Your task to perform on an android device: Is it going to rain this weekend? Image 0: 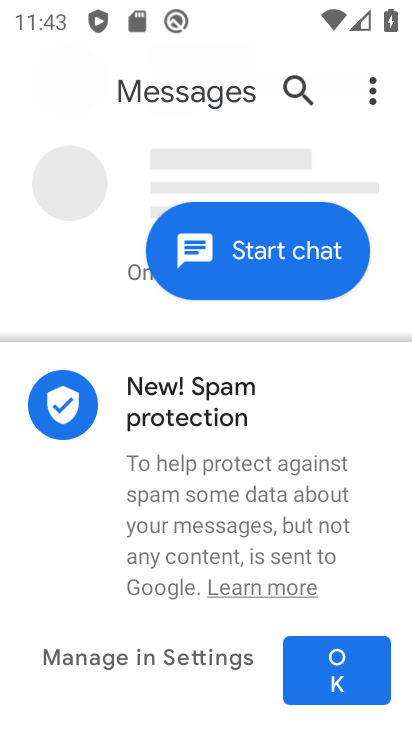
Step 0: click (299, 725)
Your task to perform on an android device: Is it going to rain this weekend? Image 1: 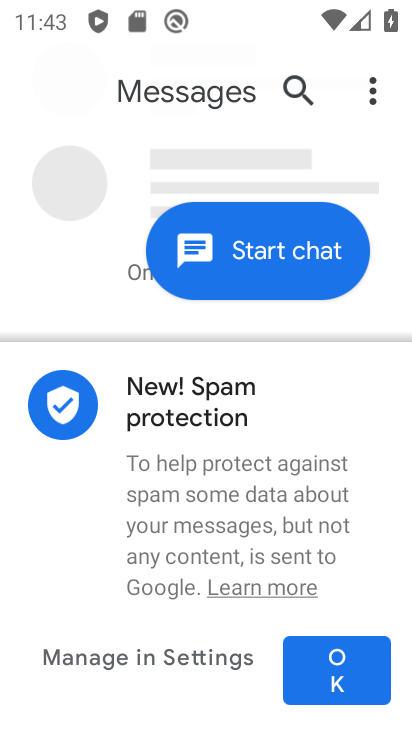
Step 1: press home button
Your task to perform on an android device: Is it going to rain this weekend? Image 2: 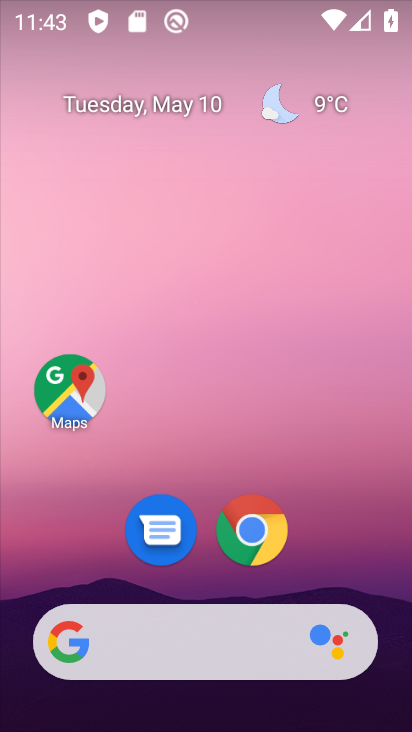
Step 2: click (253, 545)
Your task to perform on an android device: Is it going to rain this weekend? Image 3: 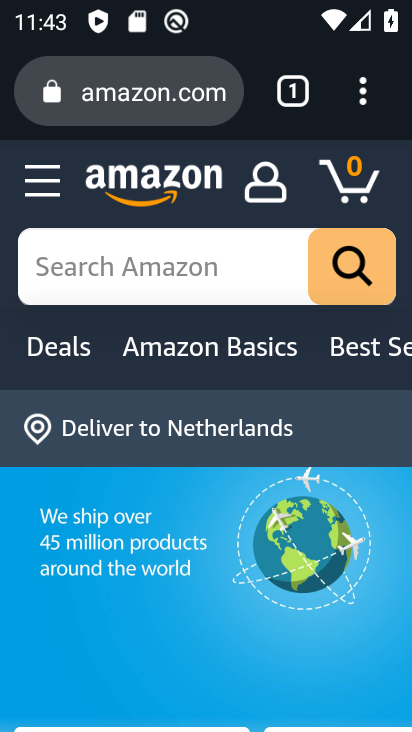
Step 3: click (163, 100)
Your task to perform on an android device: Is it going to rain this weekend? Image 4: 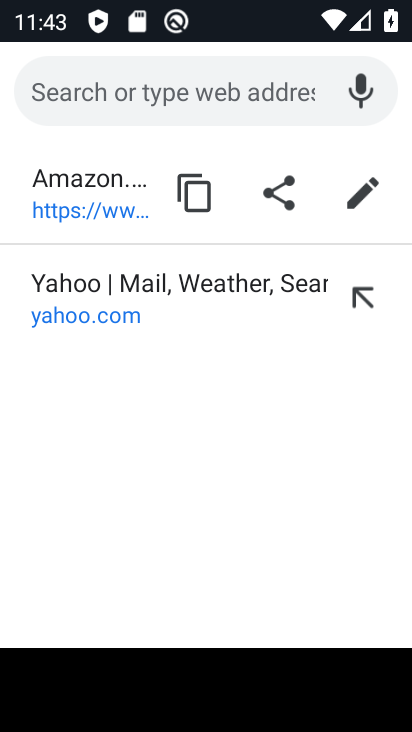
Step 4: type " Is it going to rain this weekend?"
Your task to perform on an android device: Is it going to rain this weekend? Image 5: 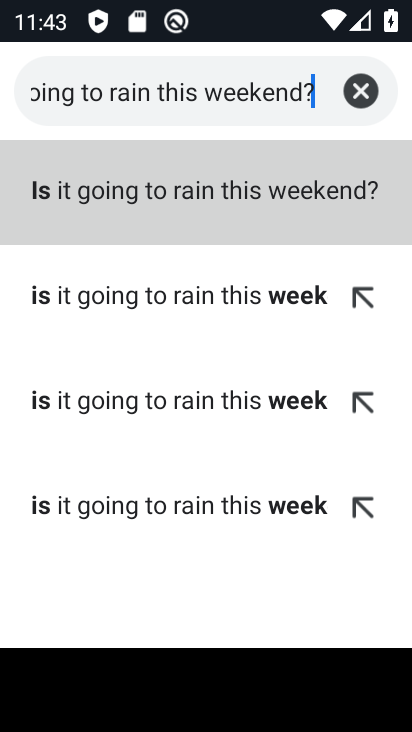
Step 5: click (280, 199)
Your task to perform on an android device: Is it going to rain this weekend? Image 6: 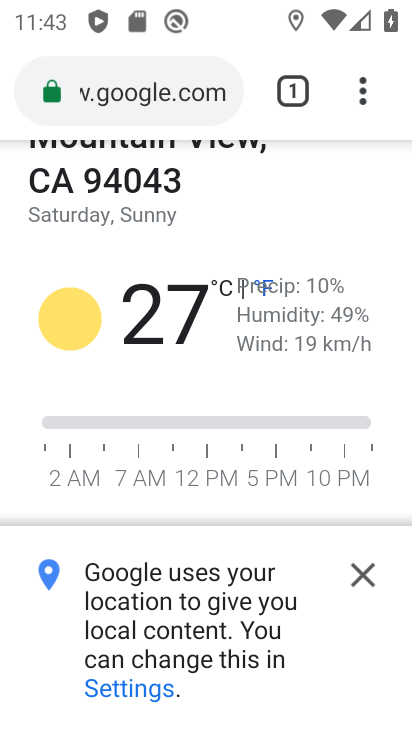
Step 6: task complete